Your task to perform on an android device: open app "Facebook Lite" (install if not already installed) and enter user name: "suppers@inbox.com" and password: "downplayed" Image 0: 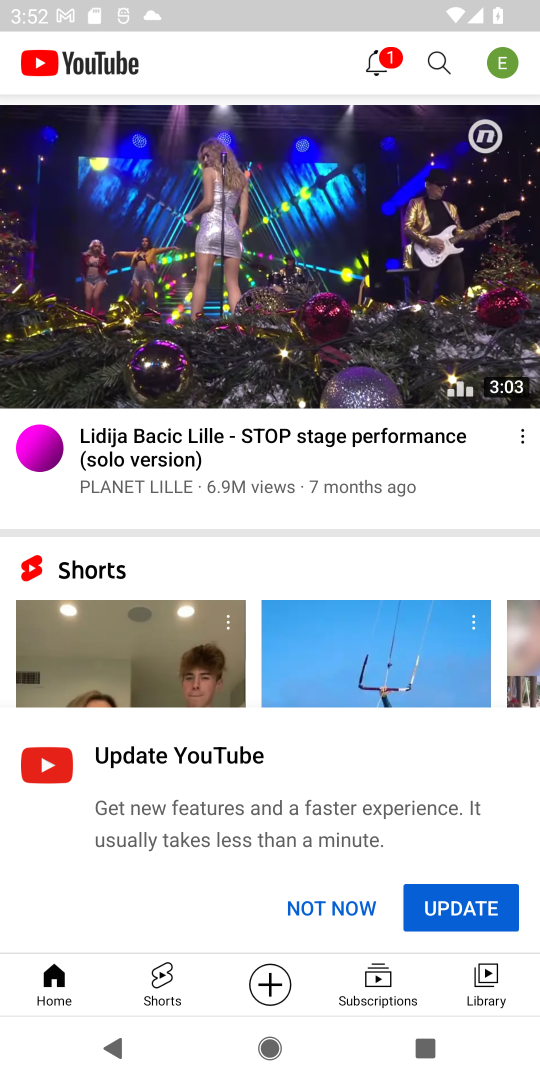
Step 0: press home button
Your task to perform on an android device: open app "Facebook Lite" (install if not already installed) and enter user name: "suppers@inbox.com" and password: "downplayed" Image 1: 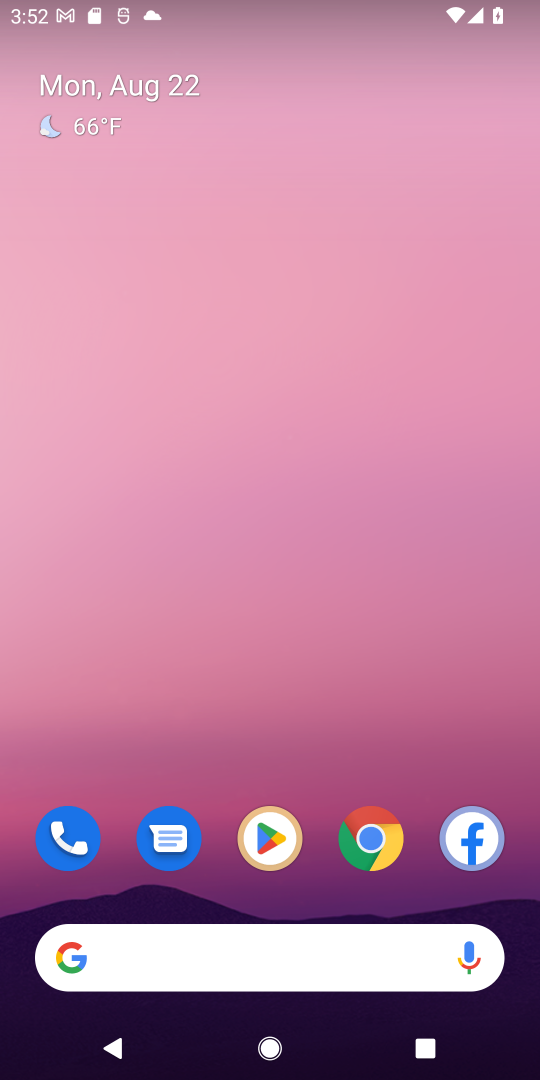
Step 1: click (270, 833)
Your task to perform on an android device: open app "Facebook Lite" (install if not already installed) and enter user name: "suppers@inbox.com" and password: "downplayed" Image 2: 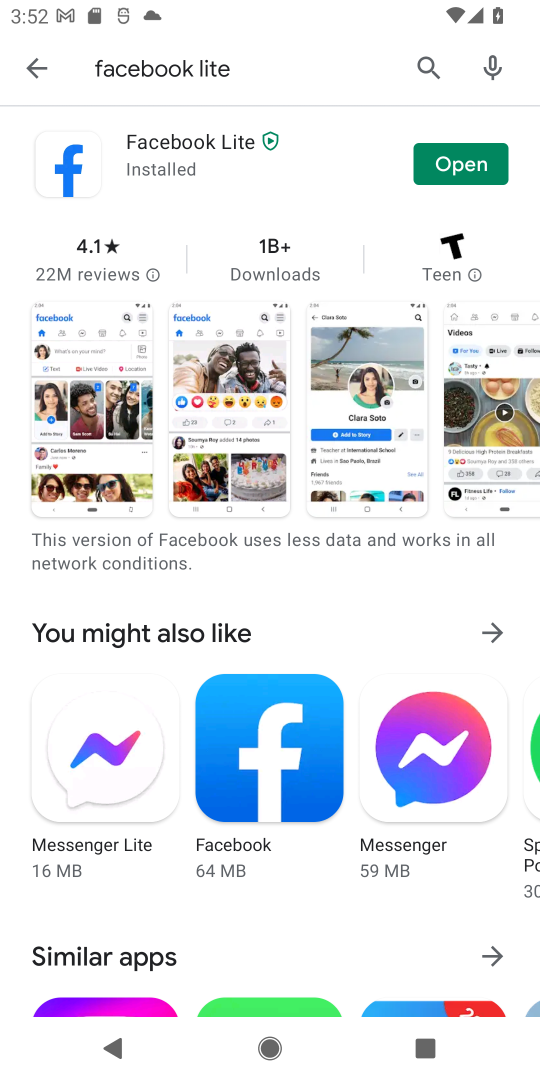
Step 2: click (453, 153)
Your task to perform on an android device: open app "Facebook Lite" (install if not already installed) and enter user name: "suppers@inbox.com" and password: "downplayed" Image 3: 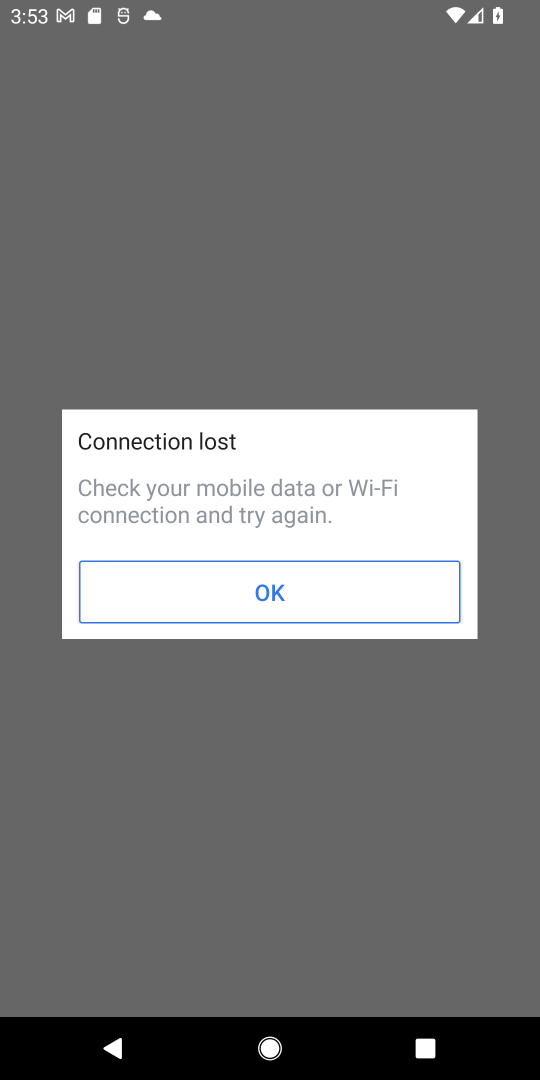
Step 3: task complete